Your task to perform on an android device: Open Youtube and go to the subscriptions tab Image 0: 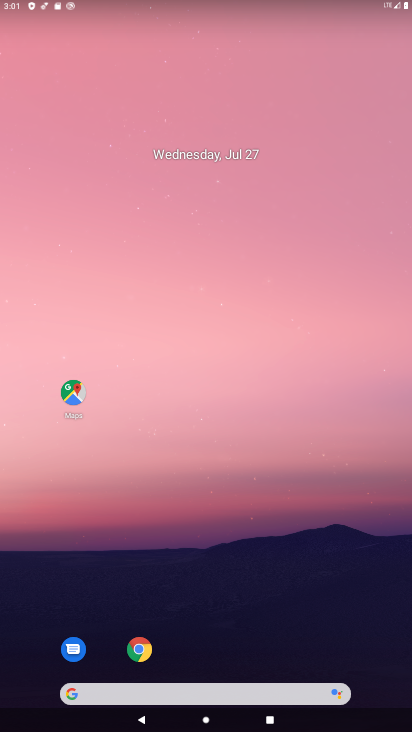
Step 0: drag from (263, 618) to (217, 79)
Your task to perform on an android device: Open Youtube and go to the subscriptions tab Image 1: 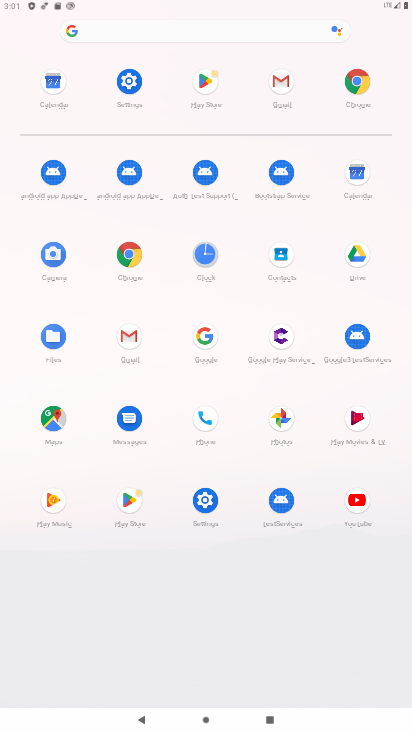
Step 1: click (361, 498)
Your task to perform on an android device: Open Youtube and go to the subscriptions tab Image 2: 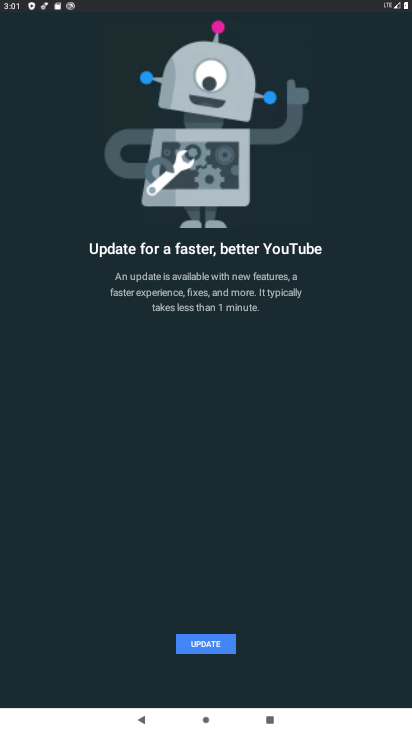
Step 2: click (223, 639)
Your task to perform on an android device: Open Youtube and go to the subscriptions tab Image 3: 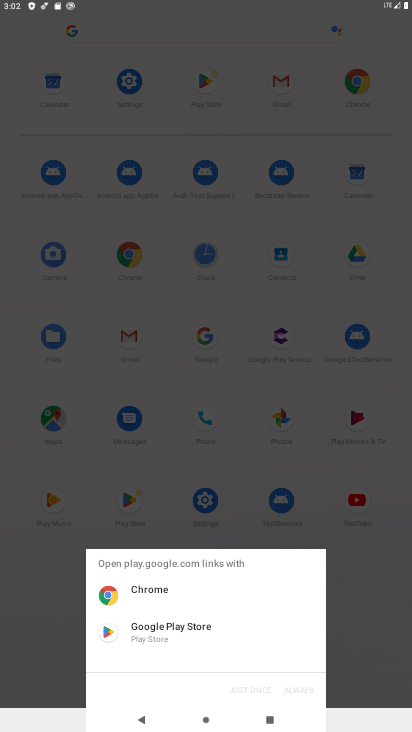
Step 3: click (171, 624)
Your task to perform on an android device: Open Youtube and go to the subscriptions tab Image 4: 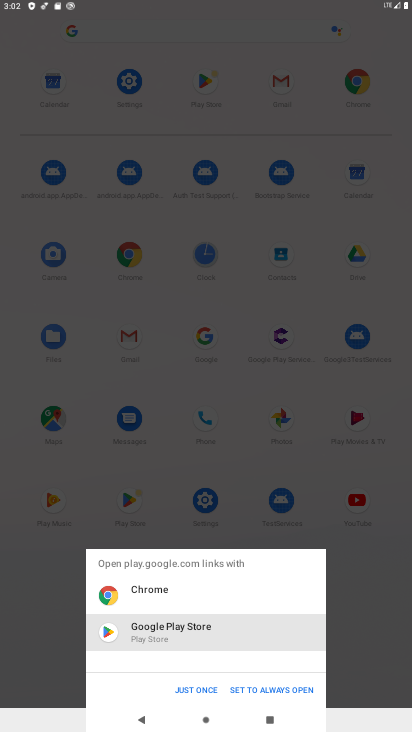
Step 4: click (193, 686)
Your task to perform on an android device: Open Youtube and go to the subscriptions tab Image 5: 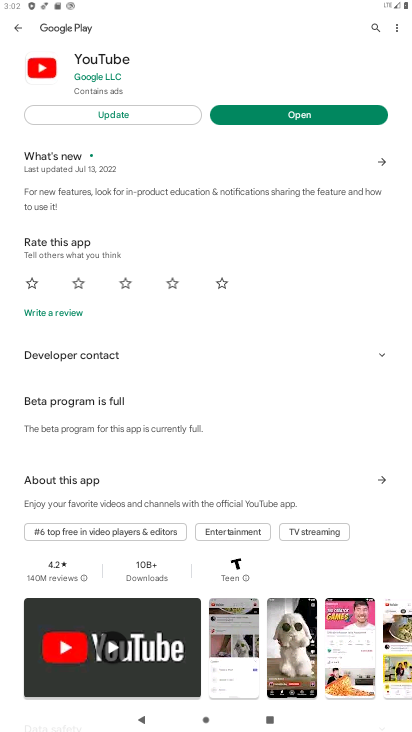
Step 5: click (153, 113)
Your task to perform on an android device: Open Youtube and go to the subscriptions tab Image 6: 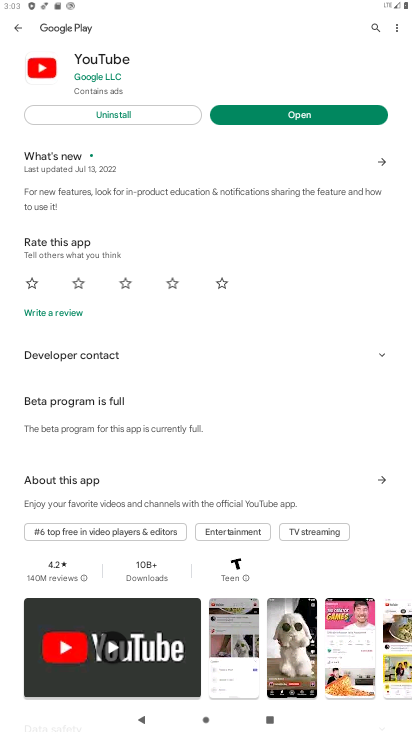
Step 6: click (366, 120)
Your task to perform on an android device: Open Youtube and go to the subscriptions tab Image 7: 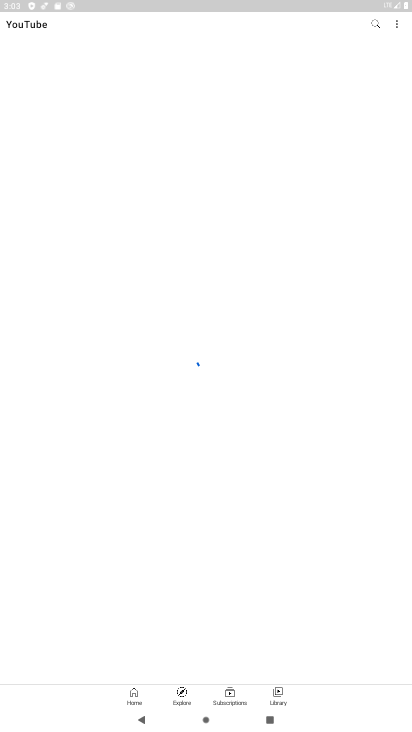
Step 7: click (235, 693)
Your task to perform on an android device: Open Youtube and go to the subscriptions tab Image 8: 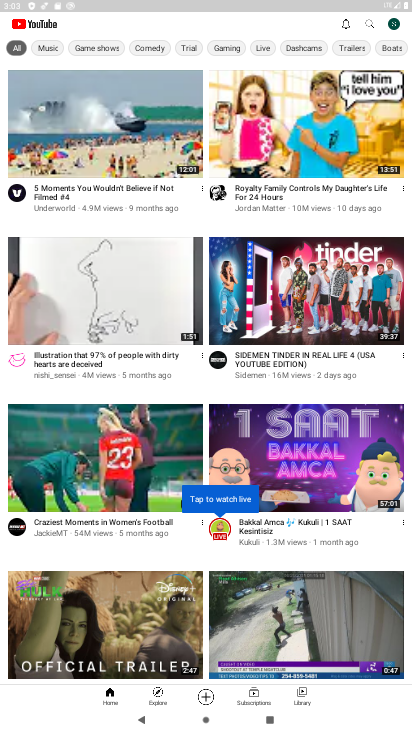
Step 8: click (245, 700)
Your task to perform on an android device: Open Youtube and go to the subscriptions tab Image 9: 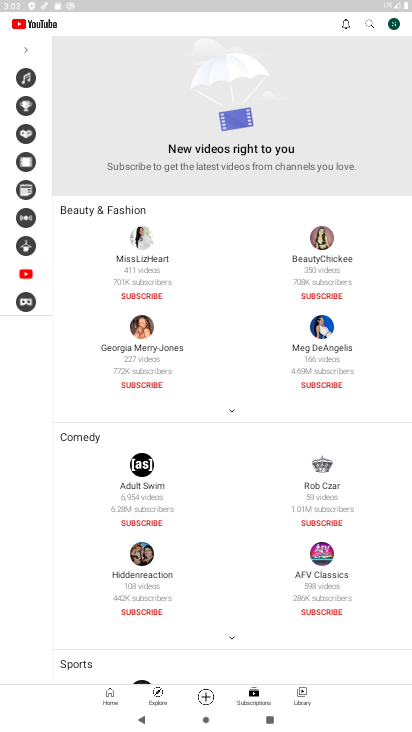
Step 9: task complete